Your task to perform on an android device: Clear the shopping cart on newegg.com. Image 0: 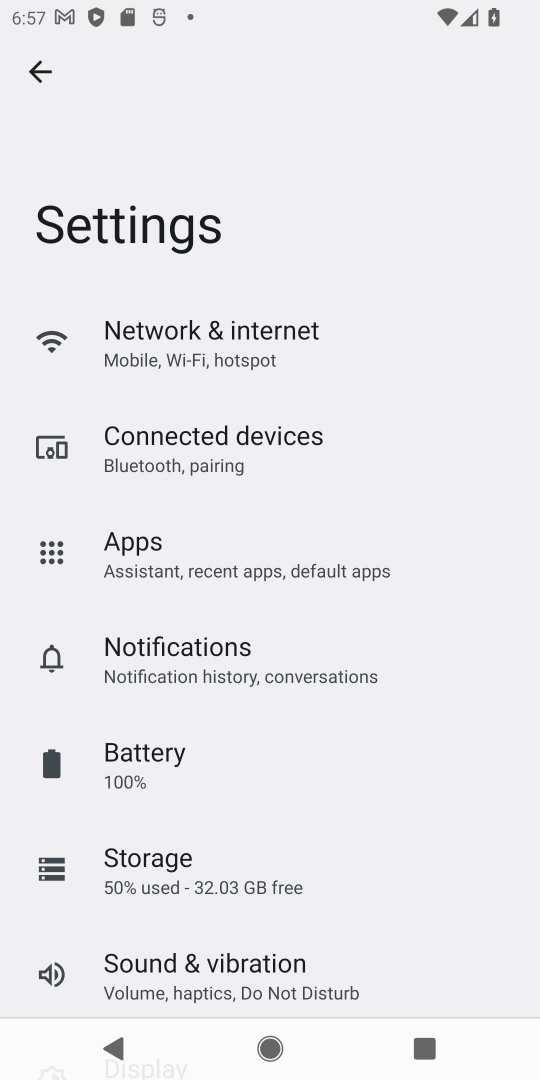
Step 0: press home button
Your task to perform on an android device: Clear the shopping cart on newegg.com. Image 1: 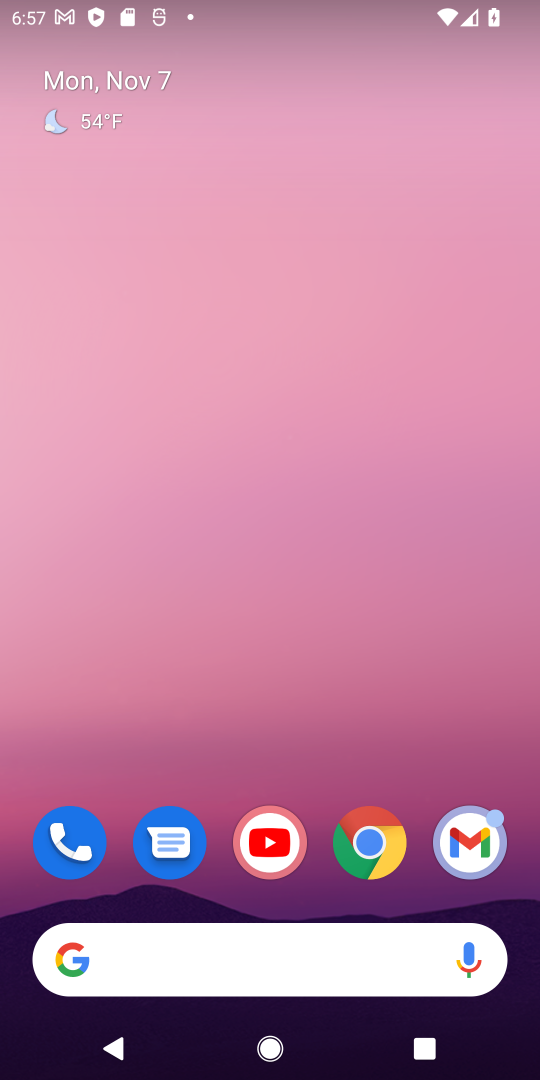
Step 1: click (383, 839)
Your task to perform on an android device: Clear the shopping cart on newegg.com. Image 2: 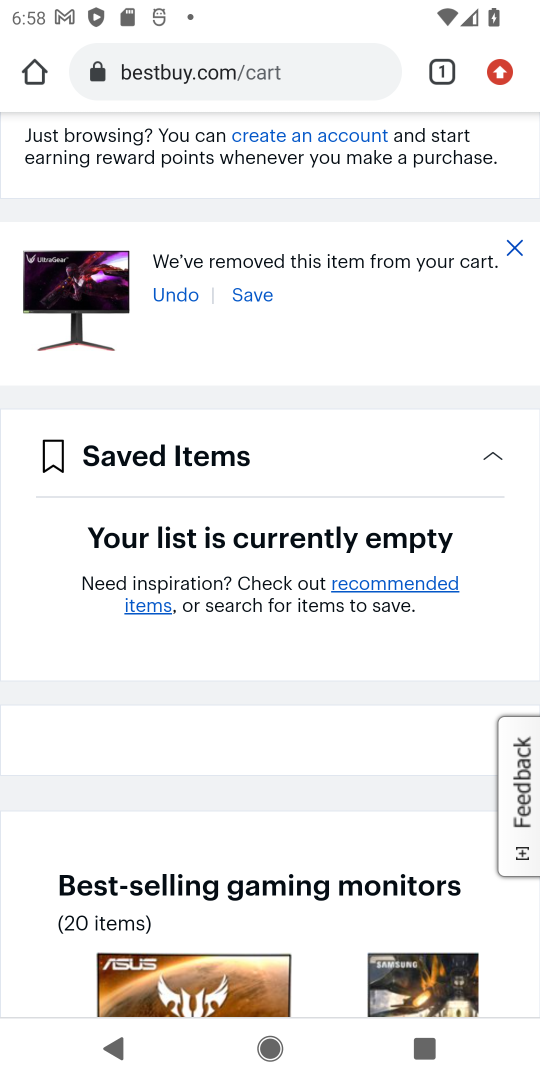
Step 2: click (289, 77)
Your task to perform on an android device: Clear the shopping cart on newegg.com. Image 3: 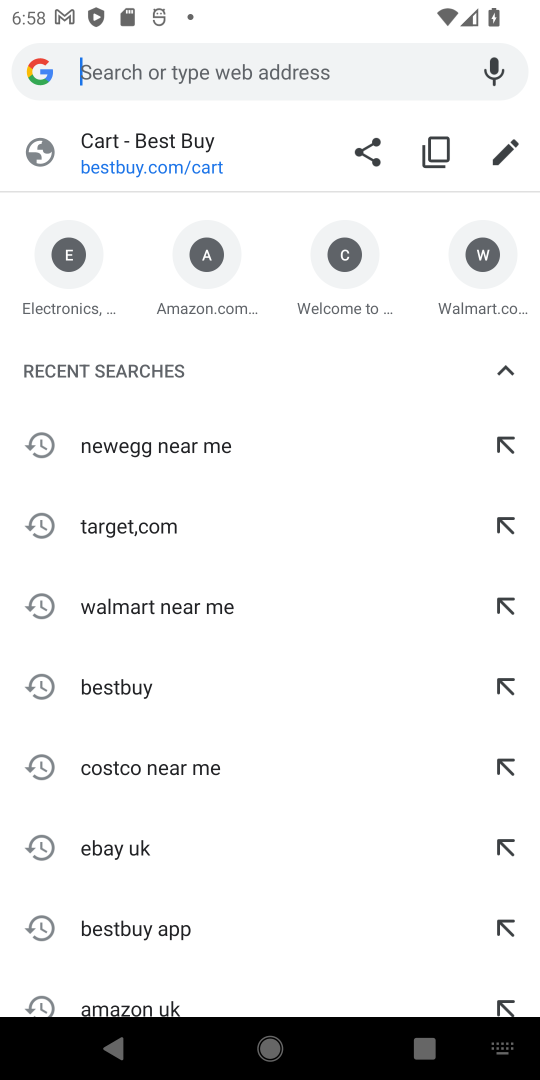
Step 3: click (108, 441)
Your task to perform on an android device: Clear the shopping cart on newegg.com. Image 4: 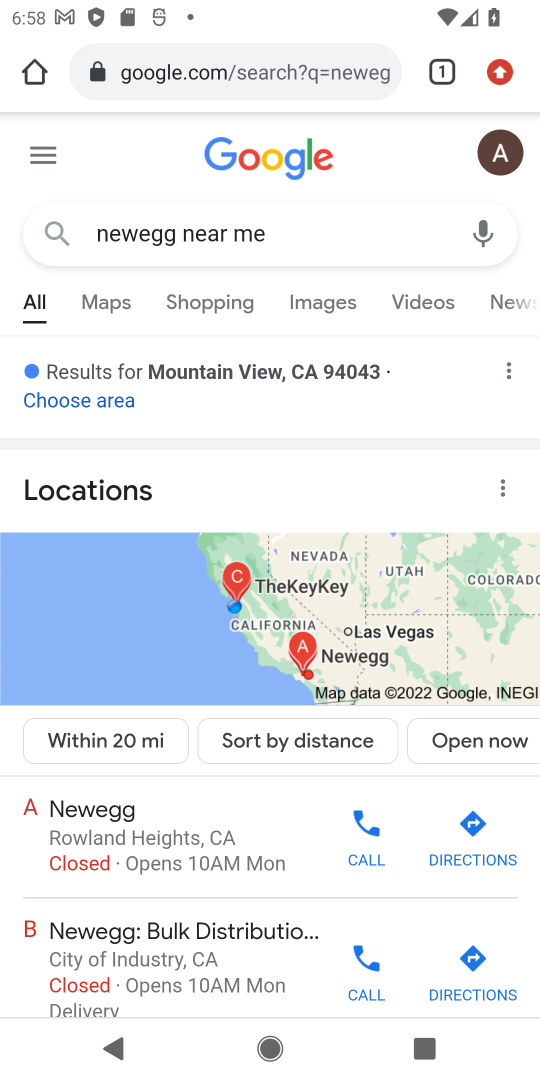
Step 4: drag from (233, 917) to (477, 163)
Your task to perform on an android device: Clear the shopping cart on newegg.com. Image 5: 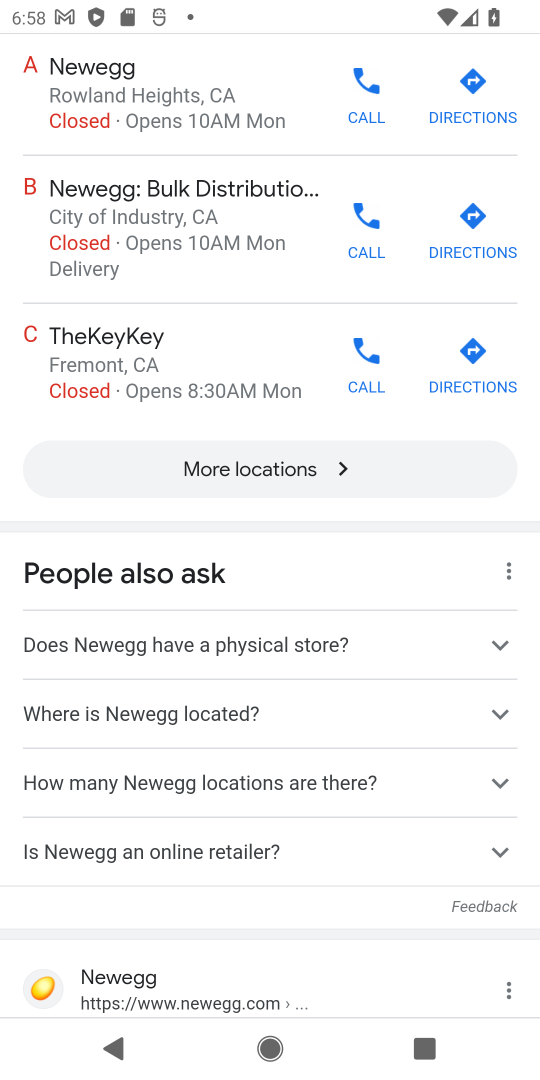
Step 5: drag from (273, 958) to (411, 524)
Your task to perform on an android device: Clear the shopping cart on newegg.com. Image 6: 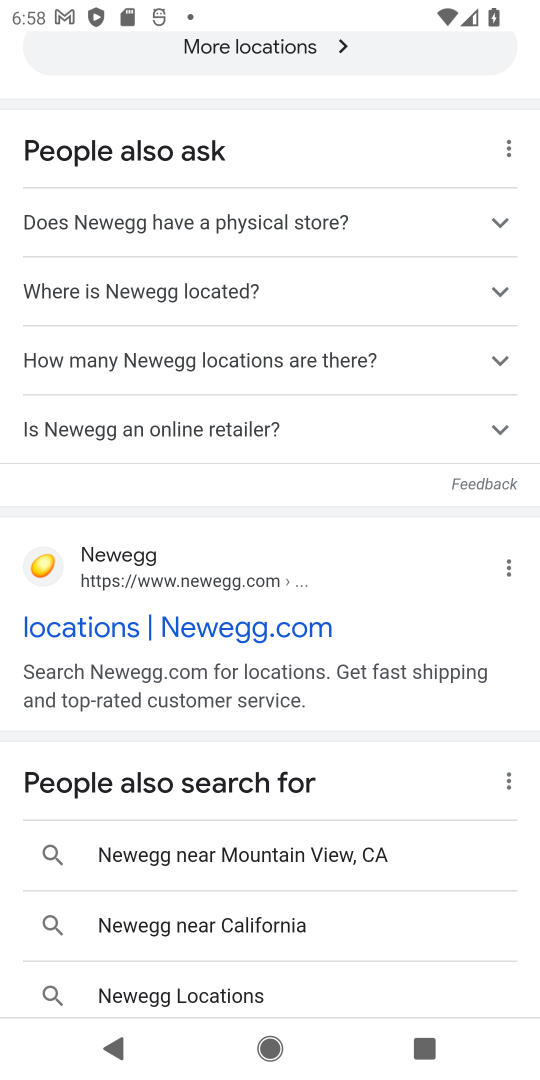
Step 6: click (124, 545)
Your task to perform on an android device: Clear the shopping cart on newegg.com. Image 7: 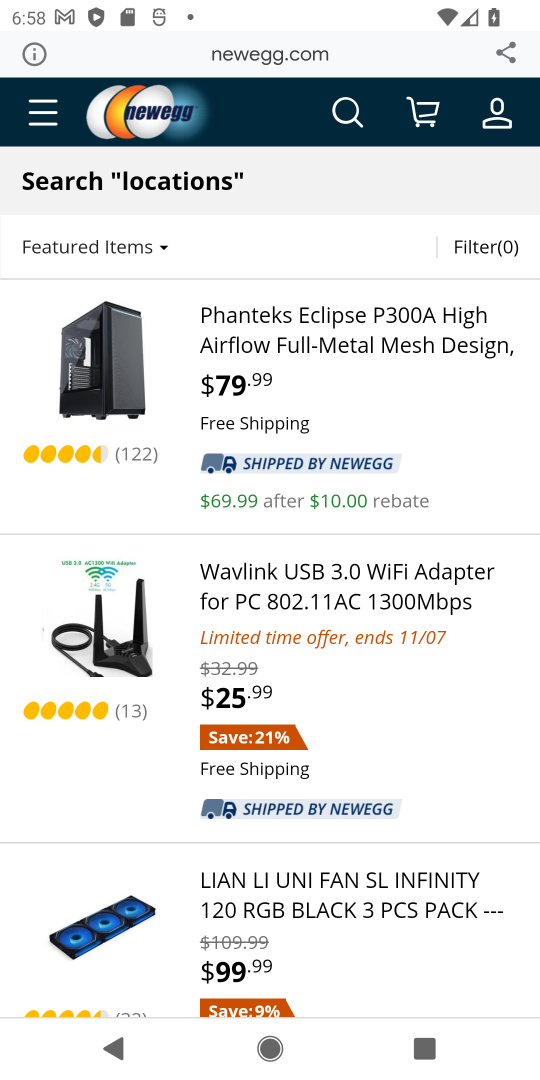
Step 7: click (434, 114)
Your task to perform on an android device: Clear the shopping cart on newegg.com. Image 8: 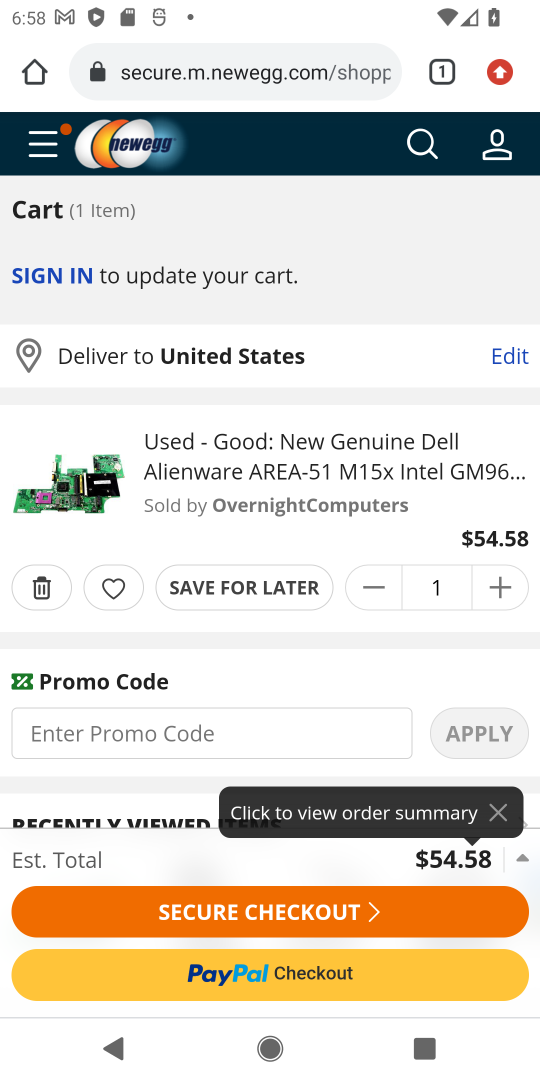
Step 8: click (38, 596)
Your task to perform on an android device: Clear the shopping cart on newegg.com. Image 9: 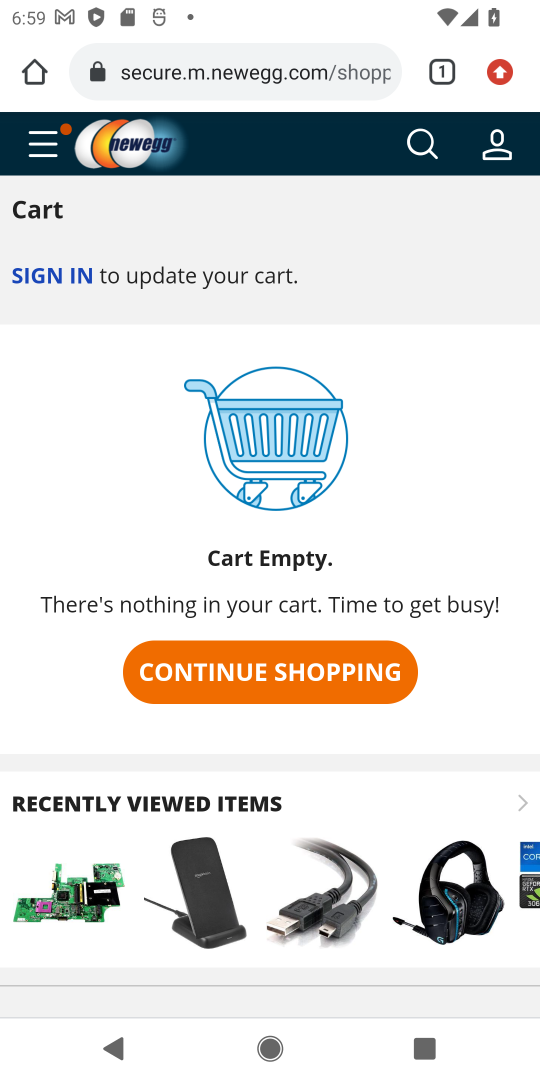
Step 9: task complete